Your task to perform on an android device: Open the phone app and click the voicemail tab. Image 0: 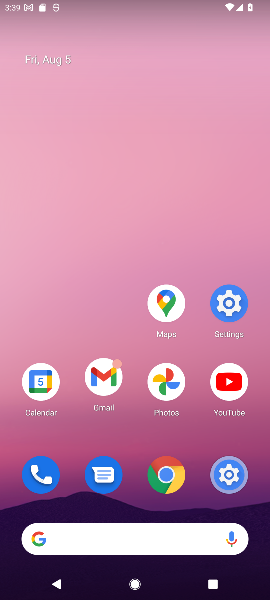
Step 0: drag from (245, 473) to (210, 157)
Your task to perform on an android device: Open the phone app and click the voicemail tab. Image 1: 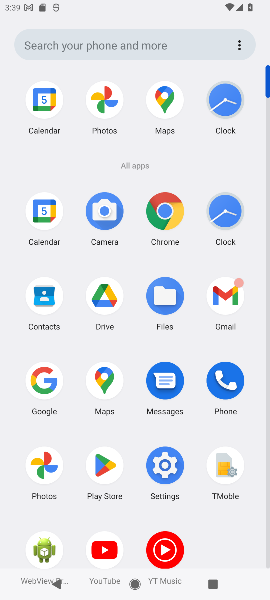
Step 1: drag from (139, 512) to (122, 249)
Your task to perform on an android device: Open the phone app and click the voicemail tab. Image 2: 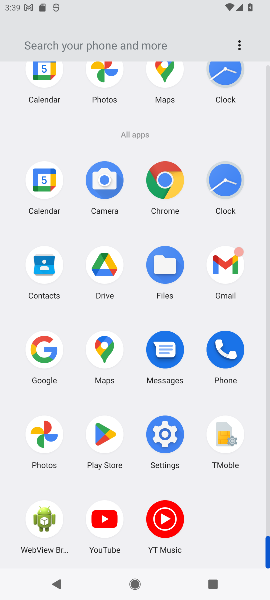
Step 2: drag from (124, 213) to (132, 368)
Your task to perform on an android device: Open the phone app and click the voicemail tab. Image 3: 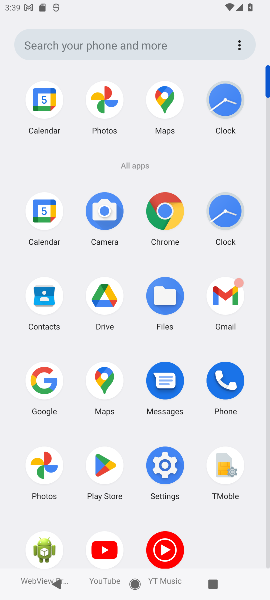
Step 3: click (216, 381)
Your task to perform on an android device: Open the phone app and click the voicemail tab. Image 4: 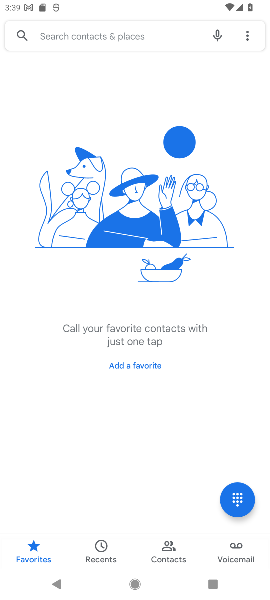
Step 4: click (235, 552)
Your task to perform on an android device: Open the phone app and click the voicemail tab. Image 5: 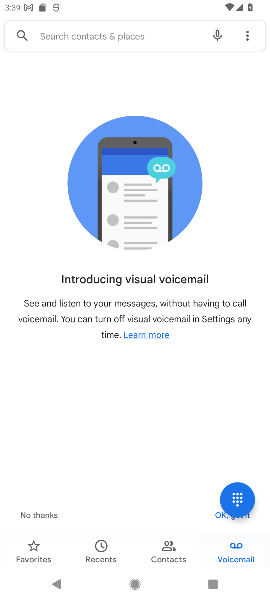
Step 5: task complete